Your task to perform on an android device: stop showing notifications on the lock screen Image 0: 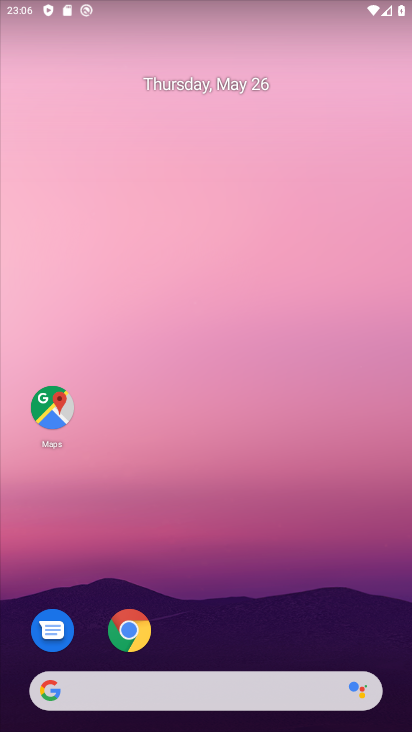
Step 0: drag from (260, 582) to (201, 129)
Your task to perform on an android device: stop showing notifications on the lock screen Image 1: 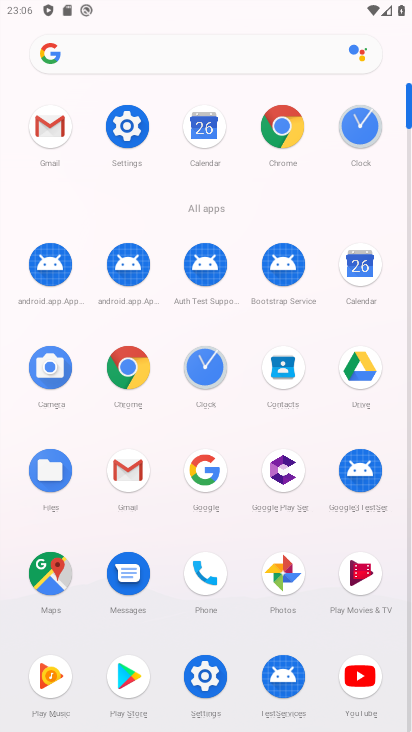
Step 1: click (127, 126)
Your task to perform on an android device: stop showing notifications on the lock screen Image 2: 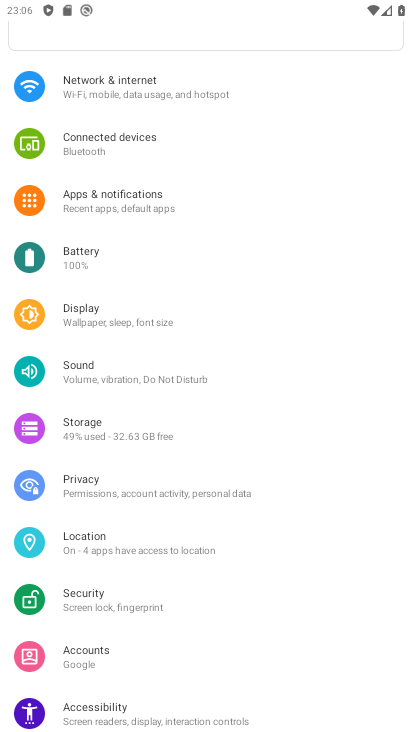
Step 2: click (118, 201)
Your task to perform on an android device: stop showing notifications on the lock screen Image 3: 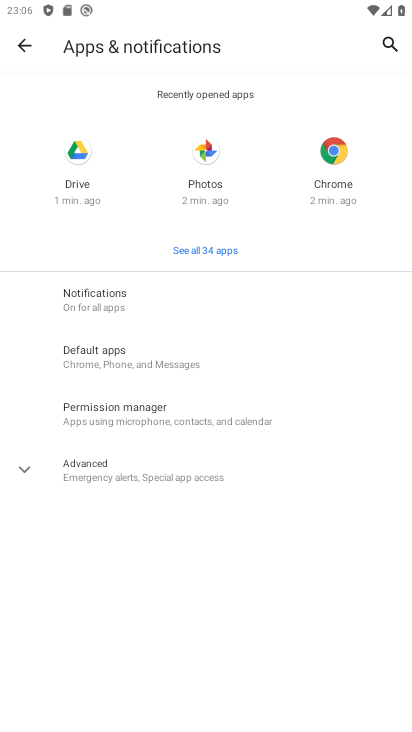
Step 3: click (110, 303)
Your task to perform on an android device: stop showing notifications on the lock screen Image 4: 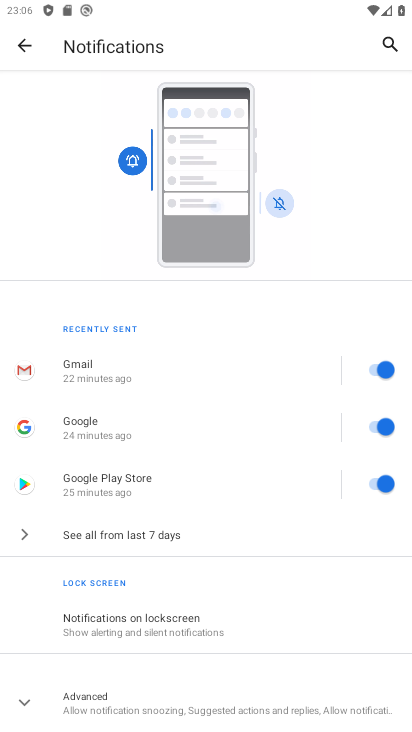
Step 4: click (140, 633)
Your task to perform on an android device: stop showing notifications on the lock screen Image 5: 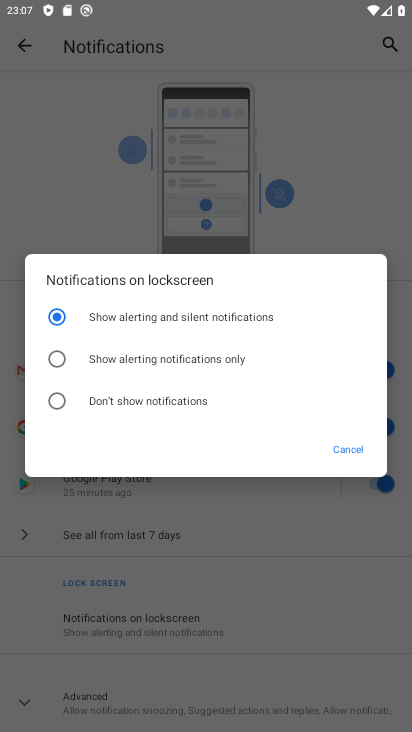
Step 5: click (59, 397)
Your task to perform on an android device: stop showing notifications on the lock screen Image 6: 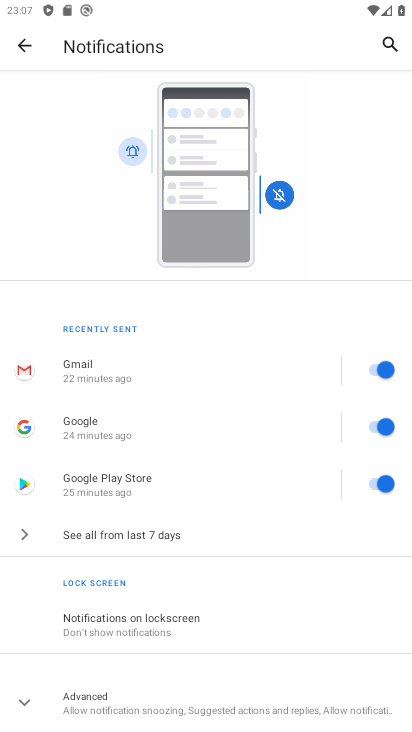
Step 6: task complete